Your task to perform on an android device: delete a single message in the gmail app Image 0: 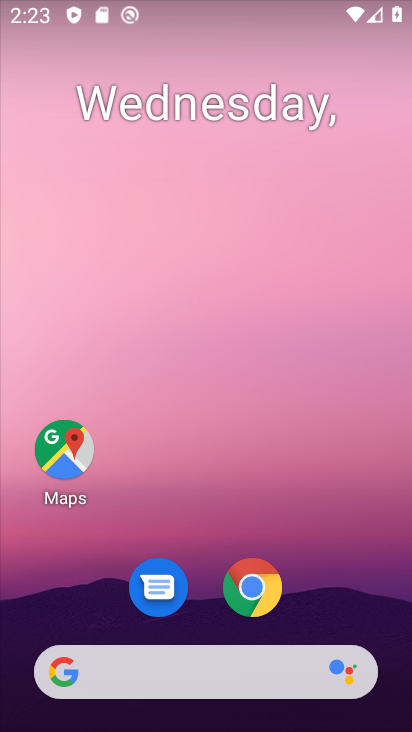
Step 0: drag from (348, 627) to (225, 282)
Your task to perform on an android device: delete a single message in the gmail app Image 1: 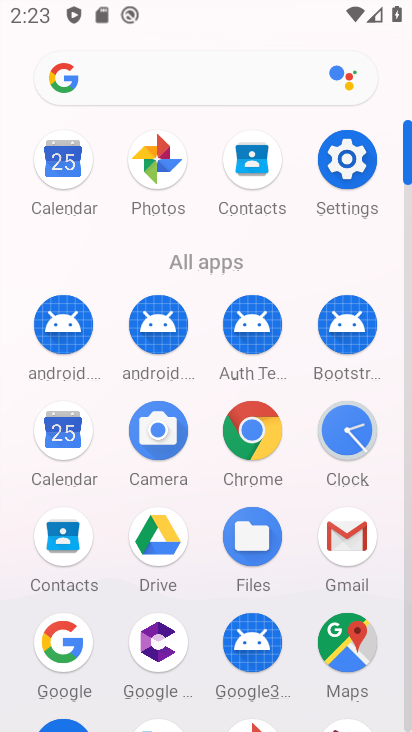
Step 1: click (356, 548)
Your task to perform on an android device: delete a single message in the gmail app Image 2: 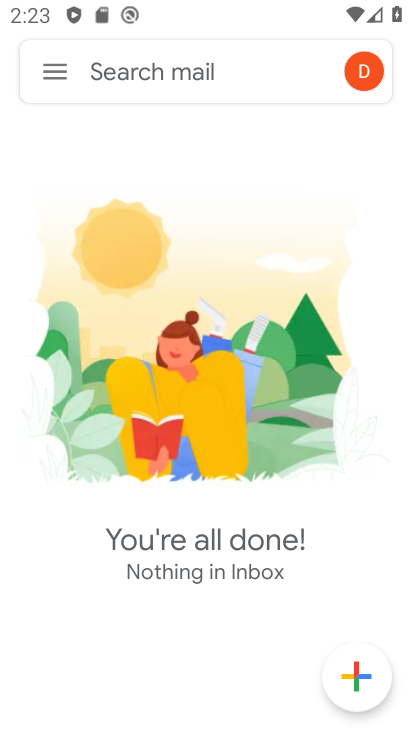
Step 2: task complete